Your task to perform on an android device: toggle data saver in the chrome app Image 0: 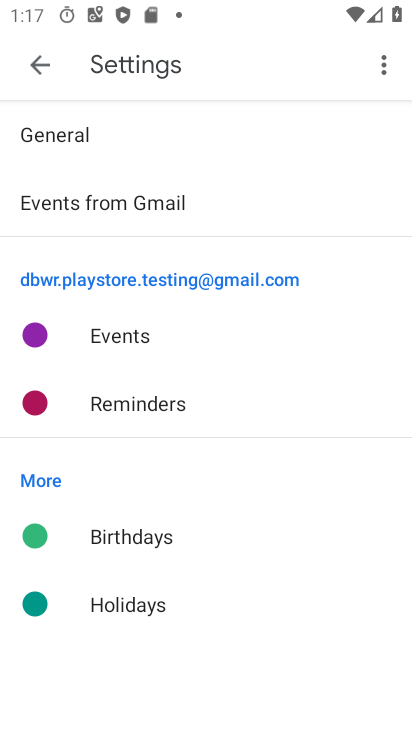
Step 0: press home button
Your task to perform on an android device: toggle data saver in the chrome app Image 1: 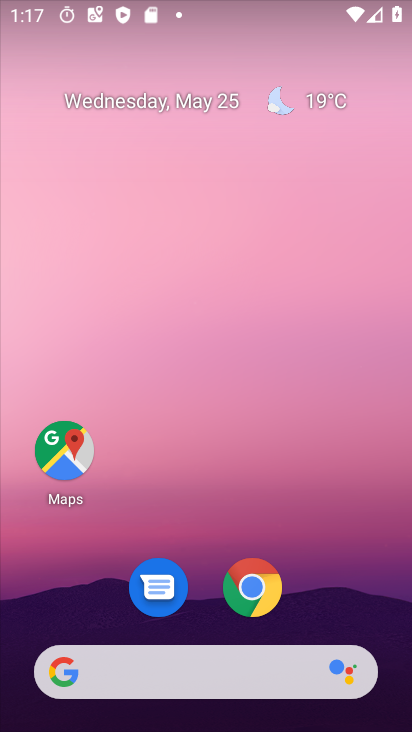
Step 1: click (264, 593)
Your task to perform on an android device: toggle data saver in the chrome app Image 2: 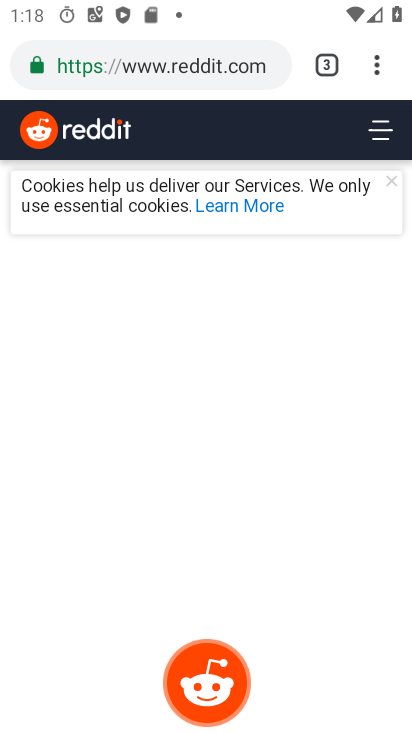
Step 2: click (379, 70)
Your task to perform on an android device: toggle data saver in the chrome app Image 3: 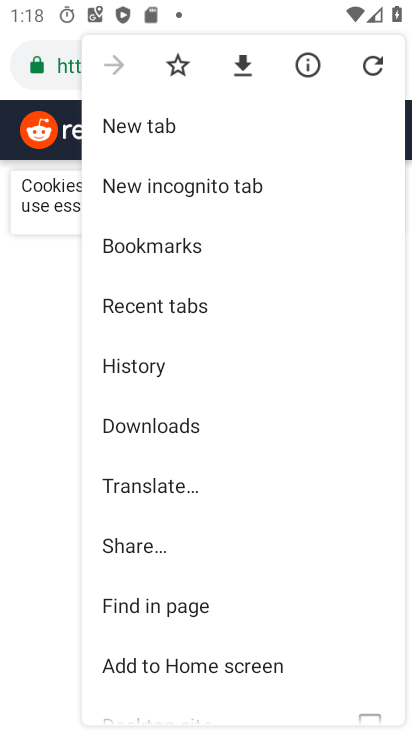
Step 3: drag from (161, 629) to (164, 258)
Your task to perform on an android device: toggle data saver in the chrome app Image 4: 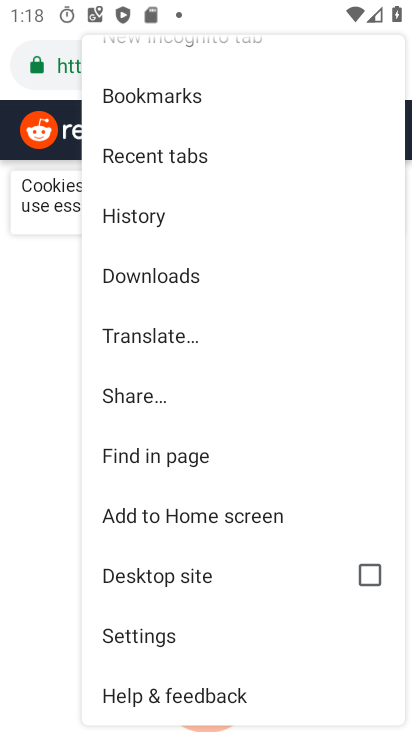
Step 4: click (149, 633)
Your task to perform on an android device: toggle data saver in the chrome app Image 5: 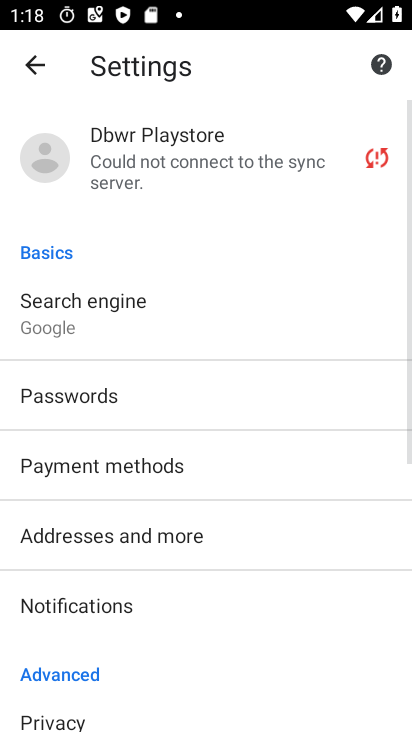
Step 5: drag from (132, 621) to (135, 292)
Your task to perform on an android device: toggle data saver in the chrome app Image 6: 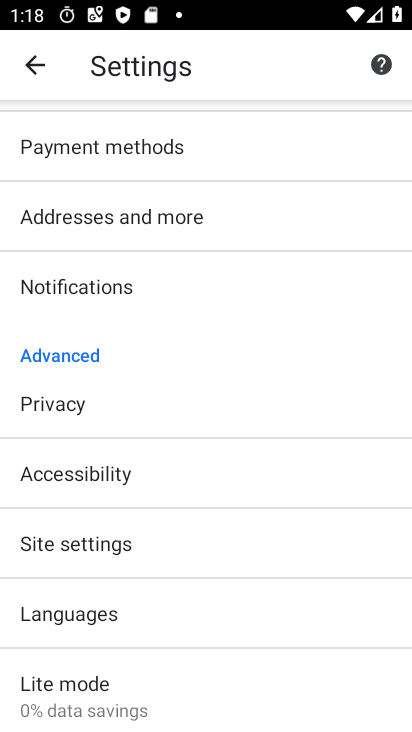
Step 6: click (88, 689)
Your task to perform on an android device: toggle data saver in the chrome app Image 7: 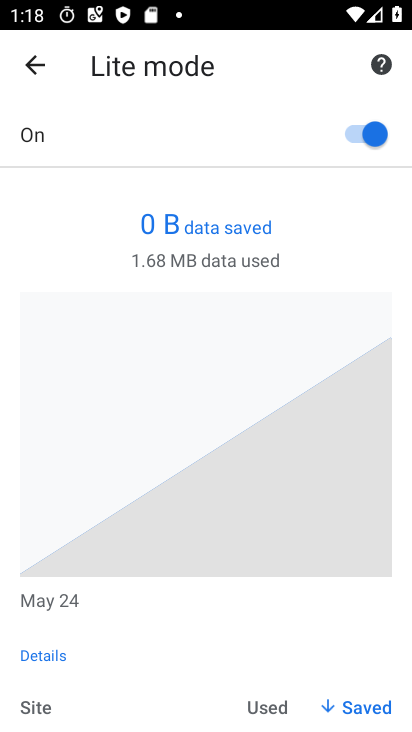
Step 7: click (354, 126)
Your task to perform on an android device: toggle data saver in the chrome app Image 8: 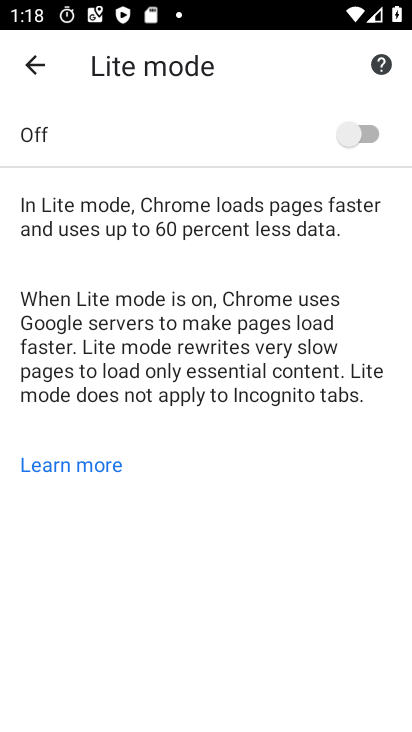
Step 8: task complete